Your task to perform on an android device: Search for the best rated 150-piece drill bit set on Aliexpress. Image 0: 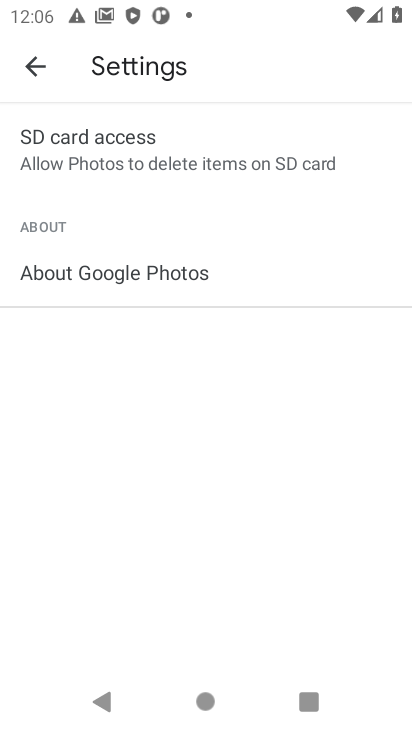
Step 0: press home button
Your task to perform on an android device: Search for the best rated 150-piece drill bit set on Aliexpress. Image 1: 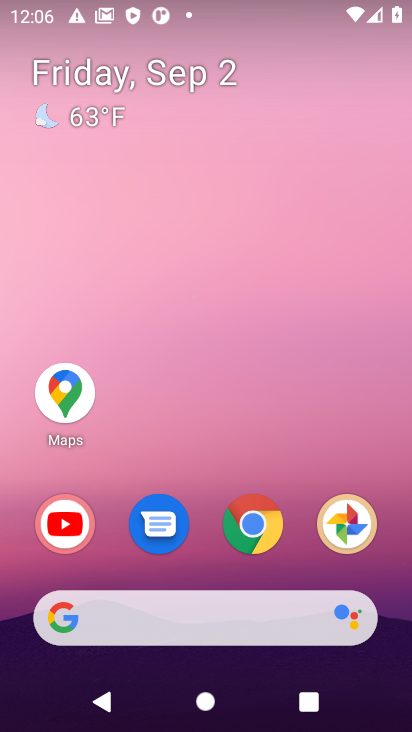
Step 1: click (253, 521)
Your task to perform on an android device: Search for the best rated 150-piece drill bit set on Aliexpress. Image 2: 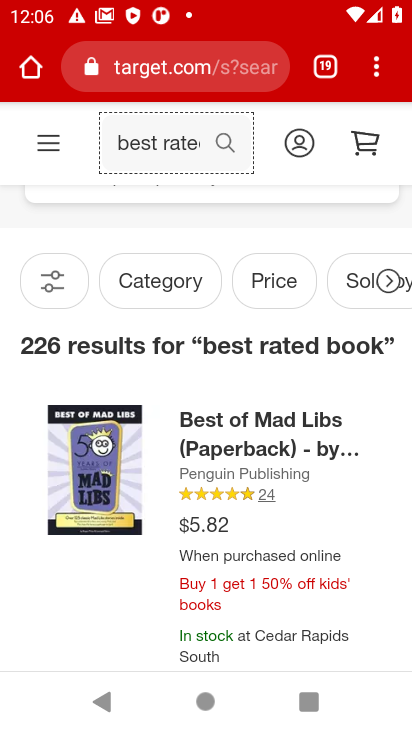
Step 2: click (325, 69)
Your task to perform on an android device: Search for the best rated 150-piece drill bit set on Aliexpress. Image 3: 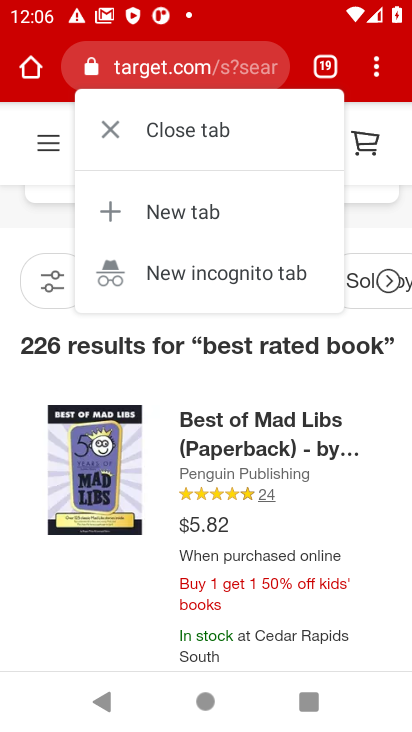
Step 3: click (330, 65)
Your task to perform on an android device: Search for the best rated 150-piece drill bit set on Aliexpress. Image 4: 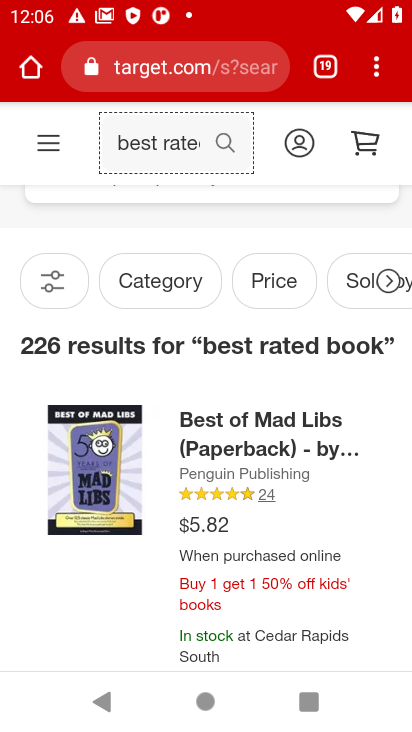
Step 4: click (330, 69)
Your task to perform on an android device: Search for the best rated 150-piece drill bit set on Aliexpress. Image 5: 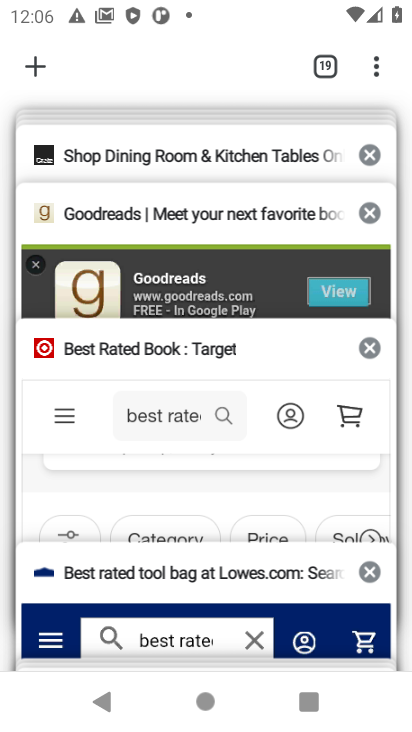
Step 5: drag from (146, 574) to (151, 126)
Your task to perform on an android device: Search for the best rated 150-piece drill bit set on Aliexpress. Image 6: 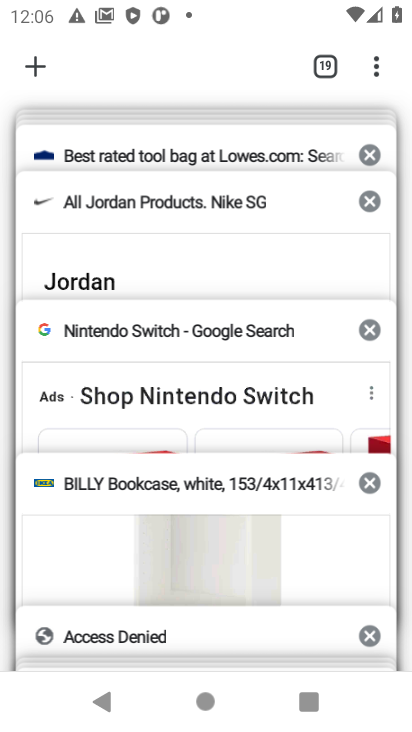
Step 6: drag from (123, 630) to (141, 140)
Your task to perform on an android device: Search for the best rated 150-piece drill bit set on Aliexpress. Image 7: 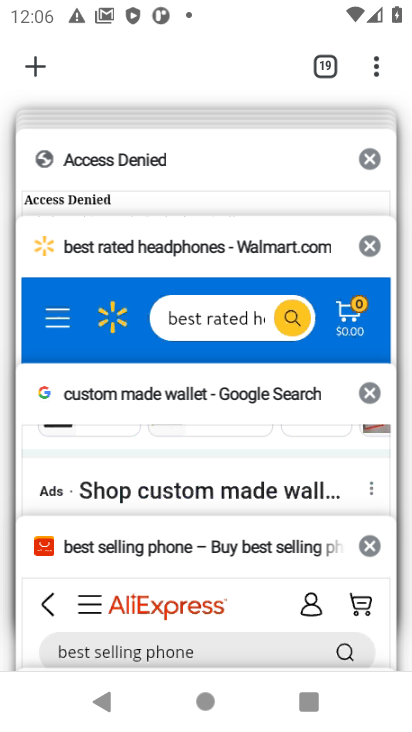
Step 7: click (167, 545)
Your task to perform on an android device: Search for the best rated 150-piece drill bit set on Aliexpress. Image 8: 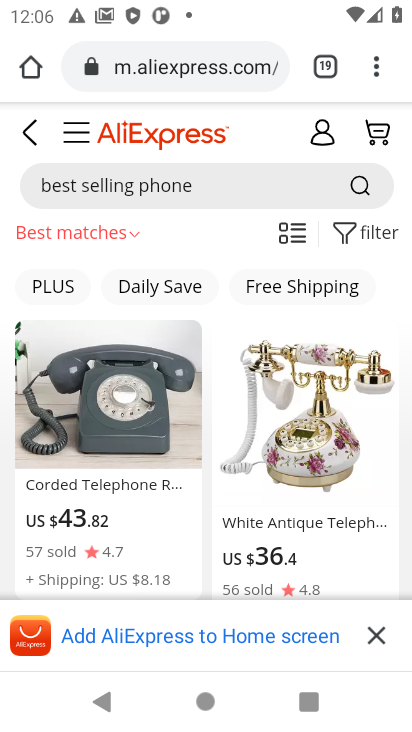
Step 8: click (220, 178)
Your task to perform on an android device: Search for the best rated 150-piece drill bit set on Aliexpress. Image 9: 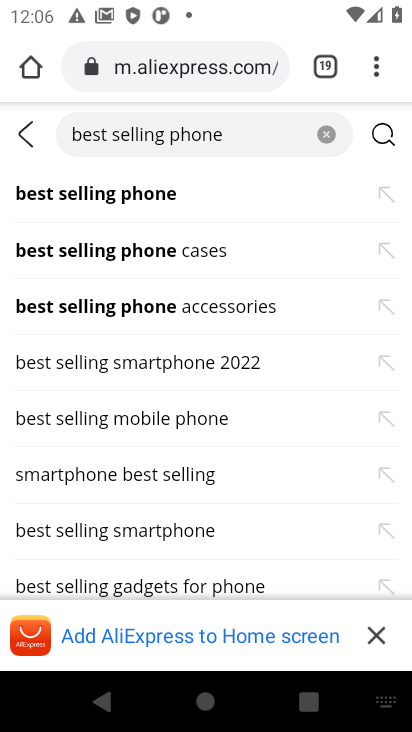
Step 9: click (328, 132)
Your task to perform on an android device: Search for the best rated 150-piece drill bit set on Aliexpress. Image 10: 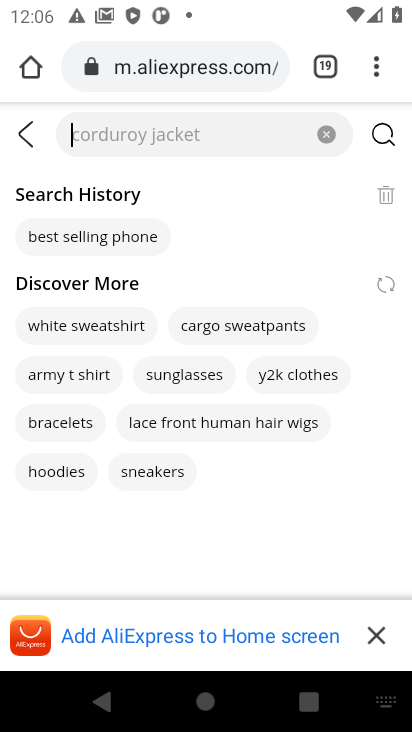
Step 10: type "best rated 150-piece drill bit set"
Your task to perform on an android device: Search for the best rated 150-piece drill bit set on Aliexpress. Image 11: 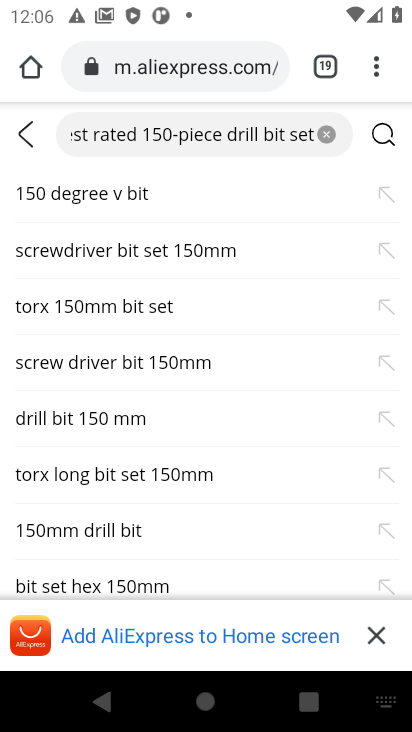
Step 11: click (400, 139)
Your task to perform on an android device: Search for the best rated 150-piece drill bit set on Aliexpress. Image 12: 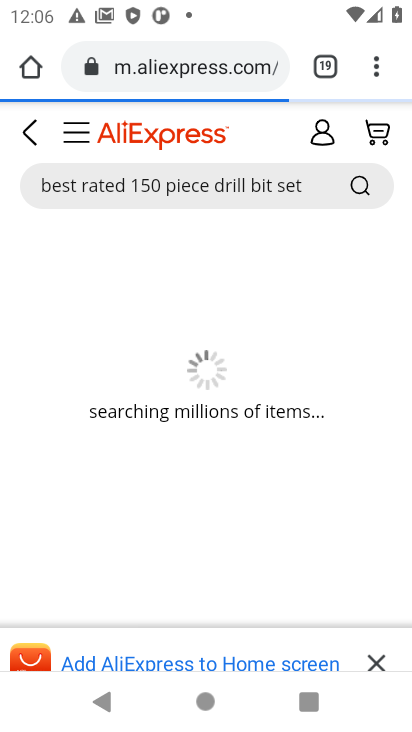
Step 12: click (386, 136)
Your task to perform on an android device: Search for the best rated 150-piece drill bit set on Aliexpress. Image 13: 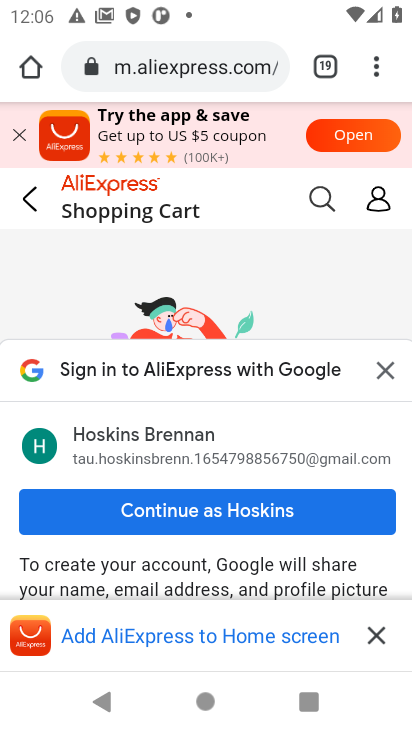
Step 13: press back button
Your task to perform on an android device: Search for the best rated 150-piece drill bit set on Aliexpress. Image 14: 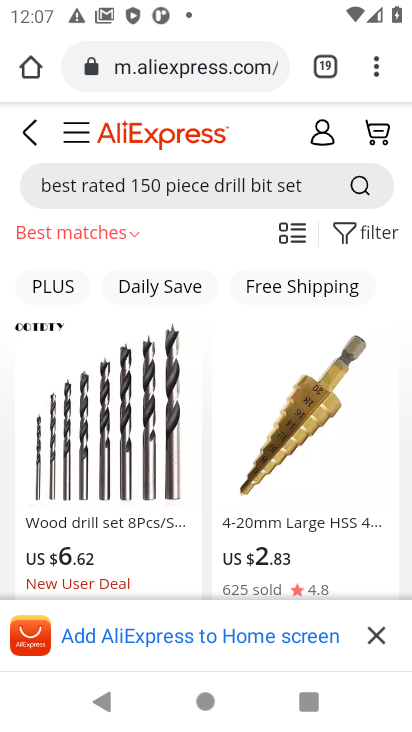
Step 14: drag from (242, 348) to (222, 246)
Your task to perform on an android device: Search for the best rated 150-piece drill bit set on Aliexpress. Image 15: 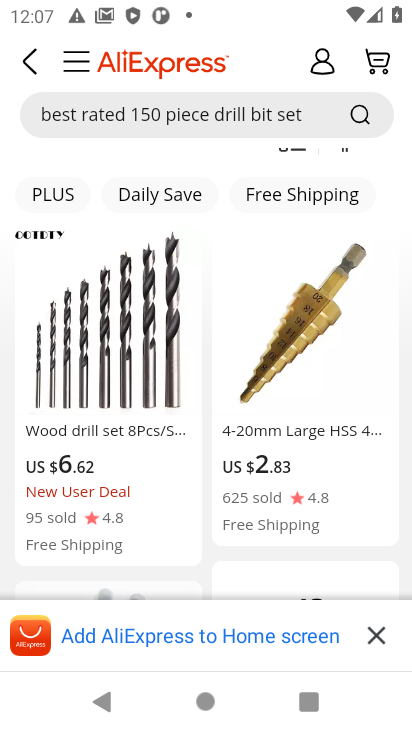
Step 15: drag from (209, 542) to (184, 242)
Your task to perform on an android device: Search for the best rated 150-piece drill bit set on Aliexpress. Image 16: 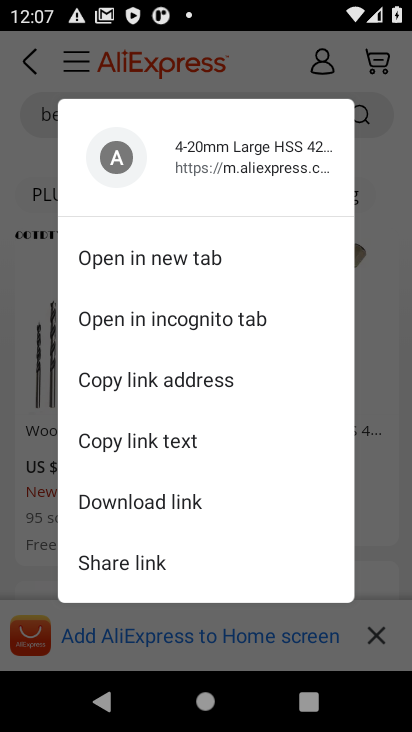
Step 16: click (380, 160)
Your task to perform on an android device: Search for the best rated 150-piece drill bit set on Aliexpress. Image 17: 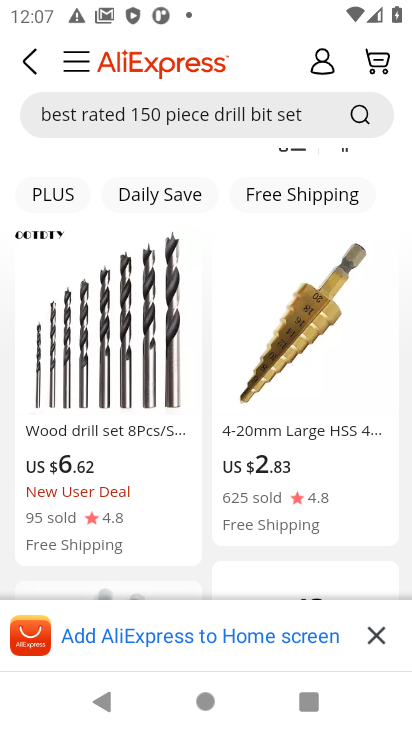
Step 17: task complete